Your task to perform on an android device: check data usage Image 0: 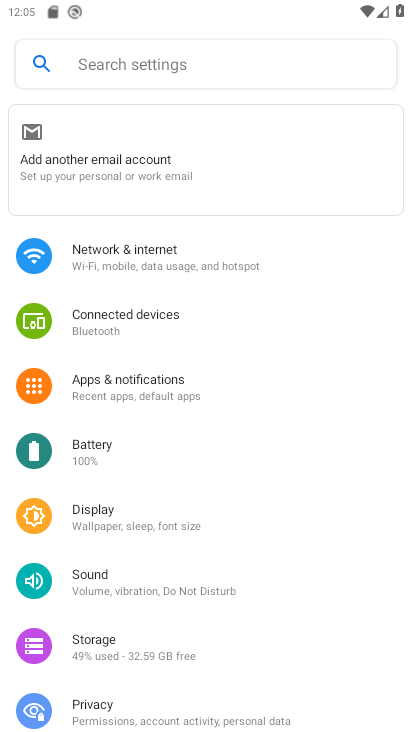
Step 0: click (132, 245)
Your task to perform on an android device: check data usage Image 1: 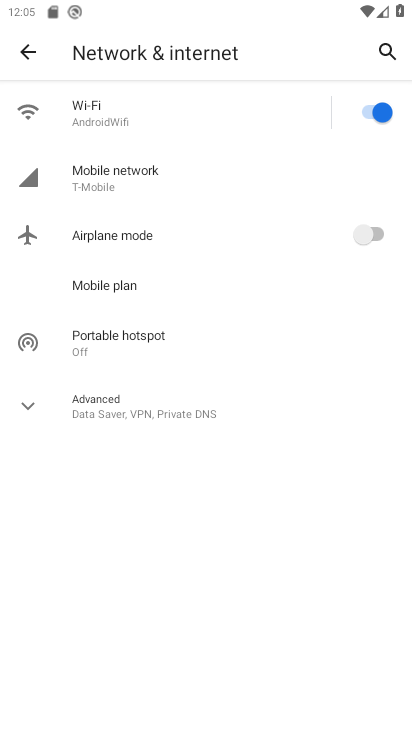
Step 1: click (150, 178)
Your task to perform on an android device: check data usage Image 2: 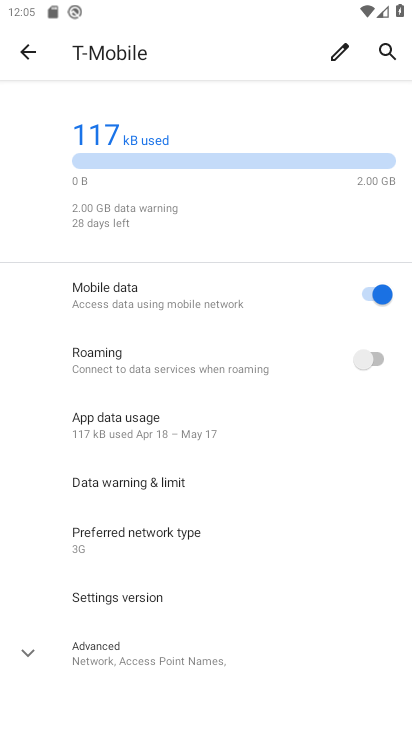
Step 2: task complete